Your task to perform on an android device: Open Google Chrome Image 0: 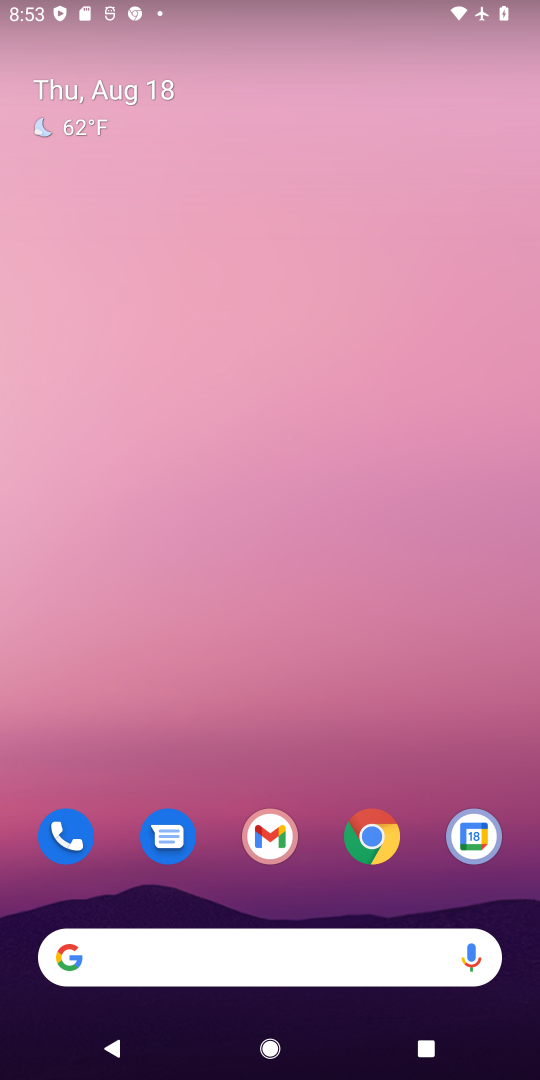
Step 0: drag from (305, 895) to (333, 101)
Your task to perform on an android device: Open Google Chrome Image 1: 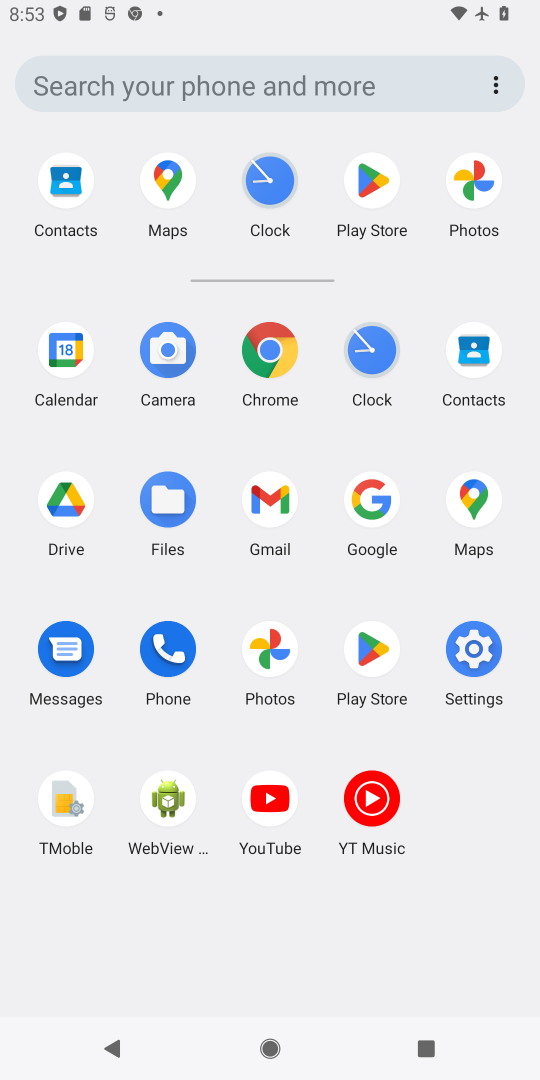
Step 1: click (273, 351)
Your task to perform on an android device: Open Google Chrome Image 2: 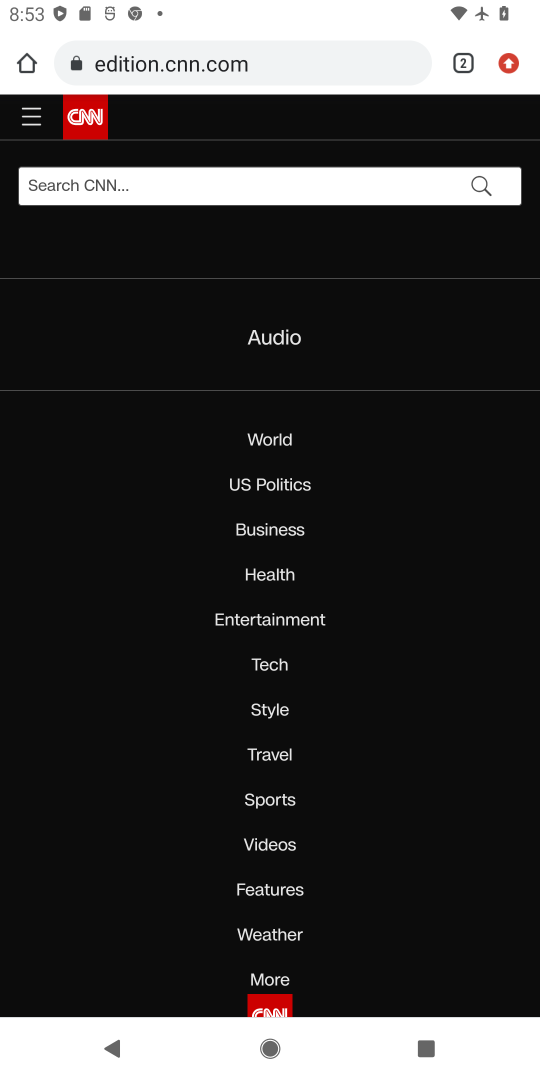
Step 2: task complete